Your task to perform on an android device: toggle data saver in the chrome app Image 0: 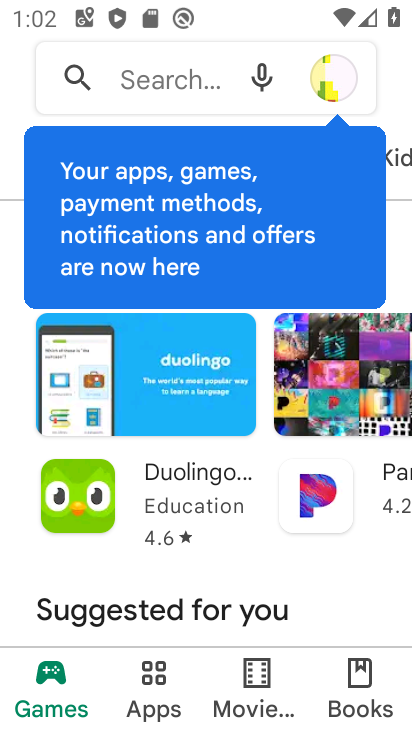
Step 0: press home button
Your task to perform on an android device: toggle data saver in the chrome app Image 1: 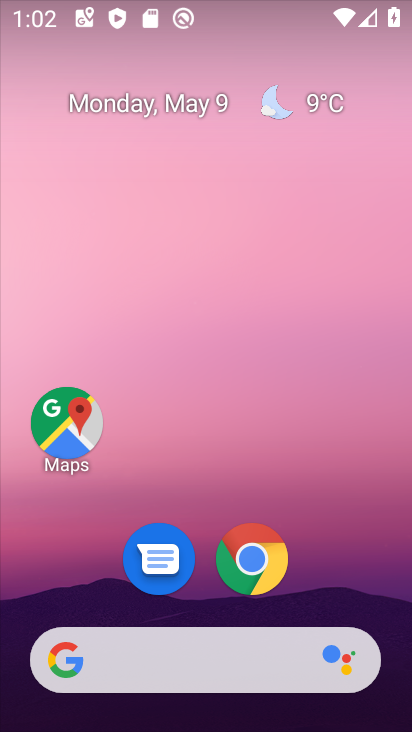
Step 1: drag from (301, 558) to (310, 255)
Your task to perform on an android device: toggle data saver in the chrome app Image 2: 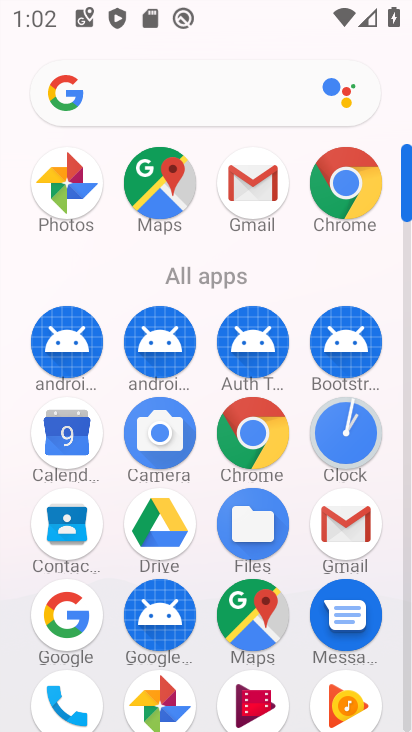
Step 2: click (265, 421)
Your task to perform on an android device: toggle data saver in the chrome app Image 3: 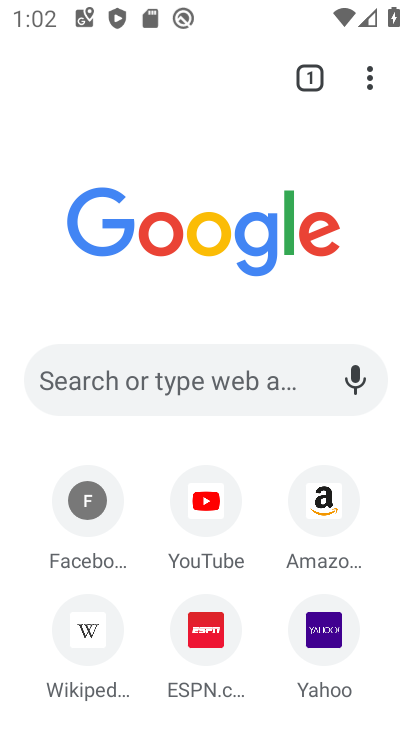
Step 3: click (356, 76)
Your task to perform on an android device: toggle data saver in the chrome app Image 4: 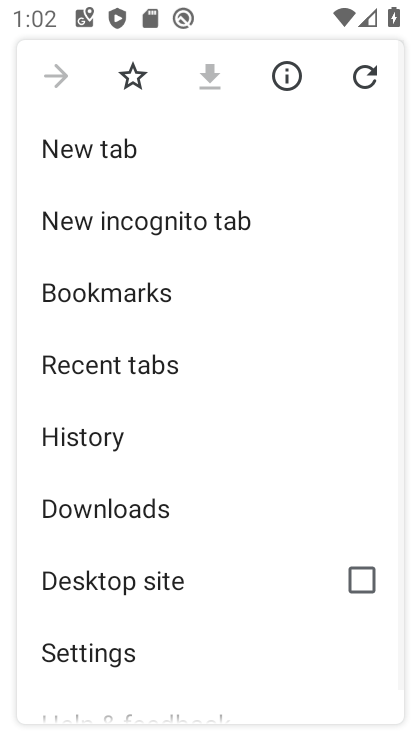
Step 4: drag from (177, 674) to (220, 313)
Your task to perform on an android device: toggle data saver in the chrome app Image 5: 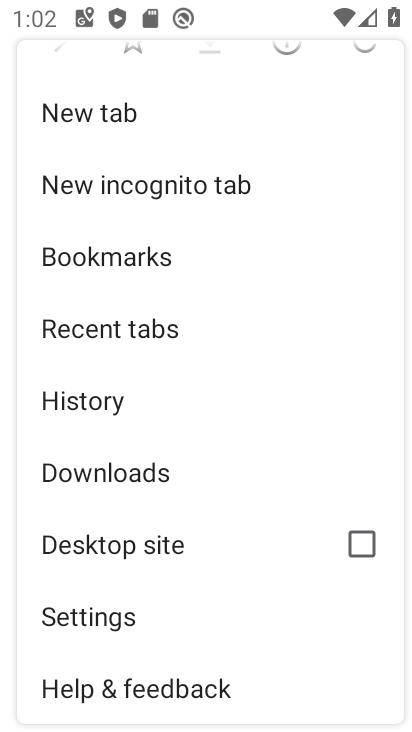
Step 5: click (138, 612)
Your task to perform on an android device: toggle data saver in the chrome app Image 6: 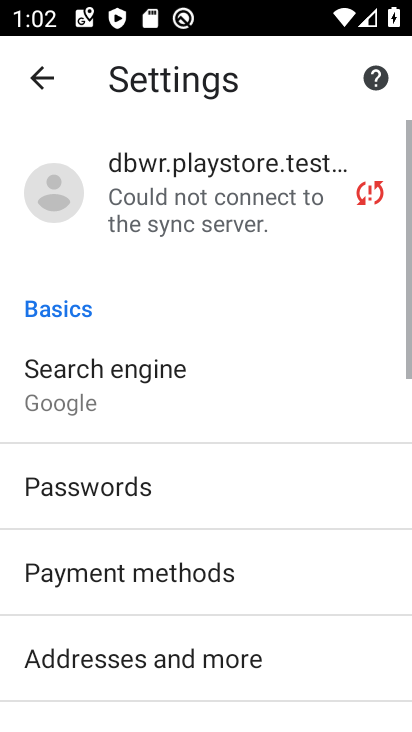
Step 6: drag from (260, 577) to (313, 229)
Your task to perform on an android device: toggle data saver in the chrome app Image 7: 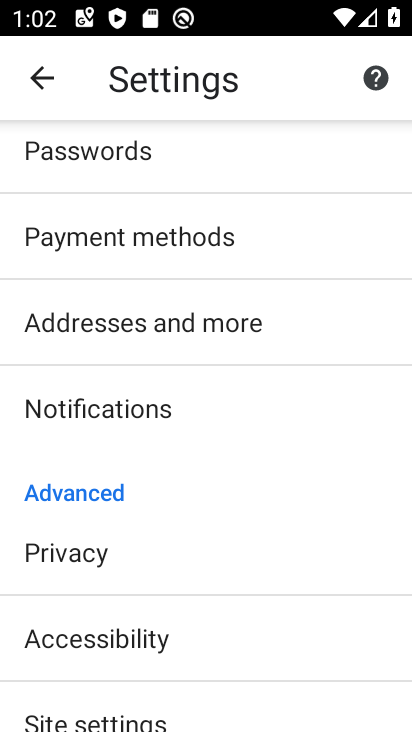
Step 7: drag from (226, 555) to (257, 300)
Your task to perform on an android device: toggle data saver in the chrome app Image 8: 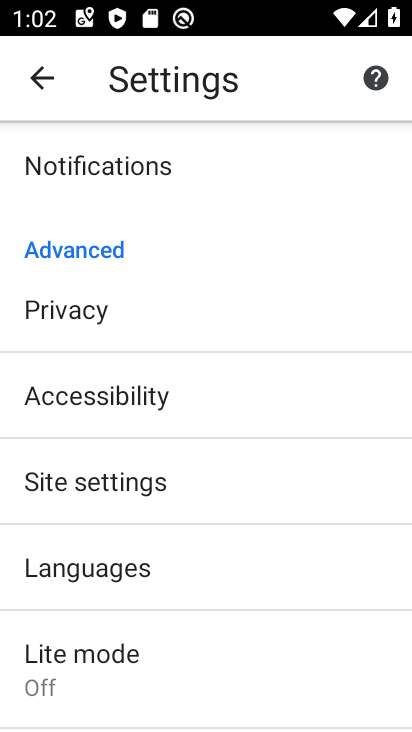
Step 8: click (135, 703)
Your task to perform on an android device: toggle data saver in the chrome app Image 9: 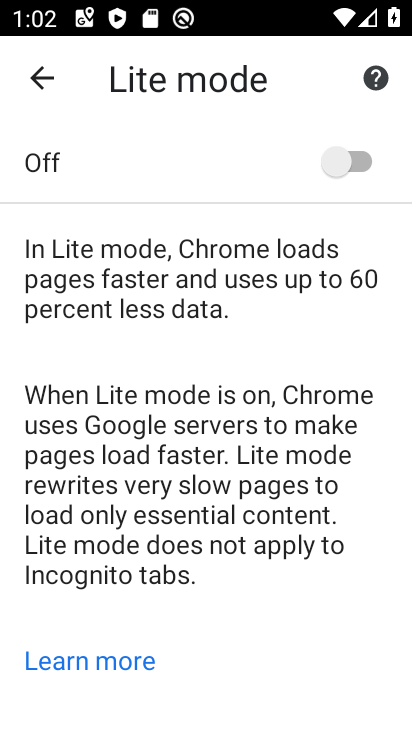
Step 9: click (348, 171)
Your task to perform on an android device: toggle data saver in the chrome app Image 10: 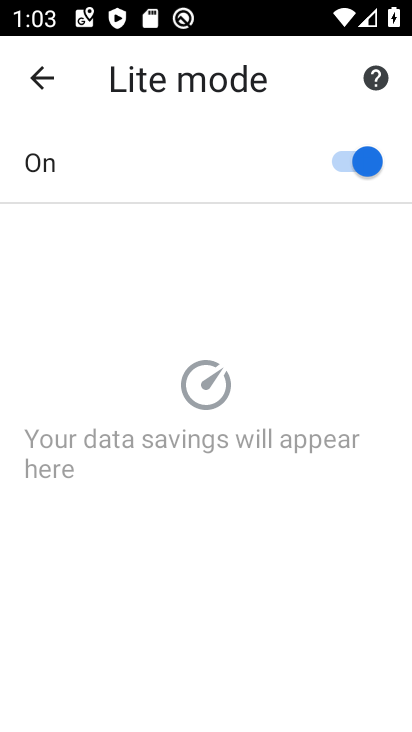
Step 10: task complete